Your task to perform on an android device: What's the weather? Image 0: 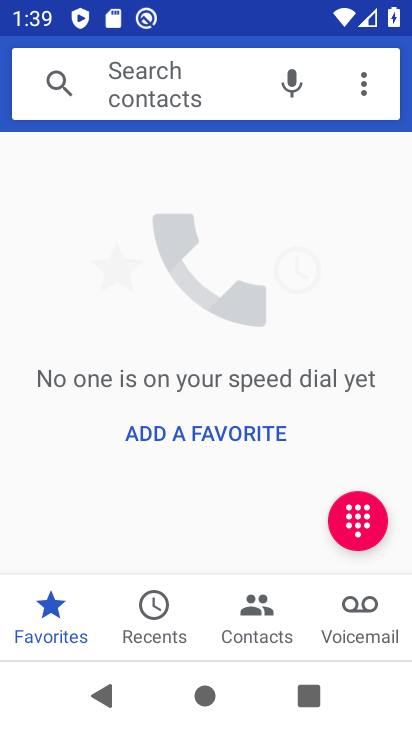
Step 0: press home button
Your task to perform on an android device: What's the weather? Image 1: 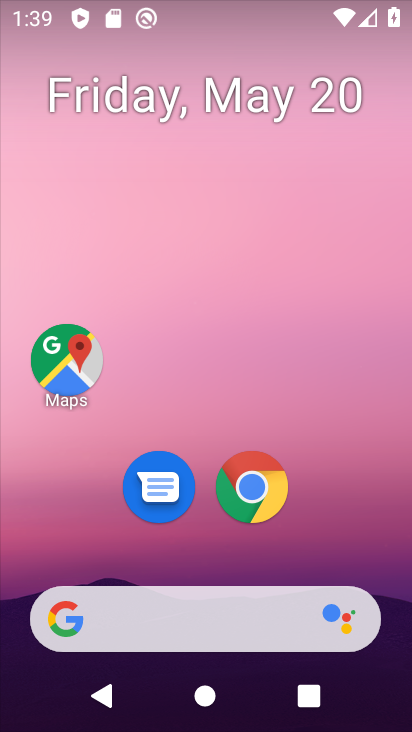
Step 1: drag from (337, 524) to (332, 25)
Your task to perform on an android device: What's the weather? Image 2: 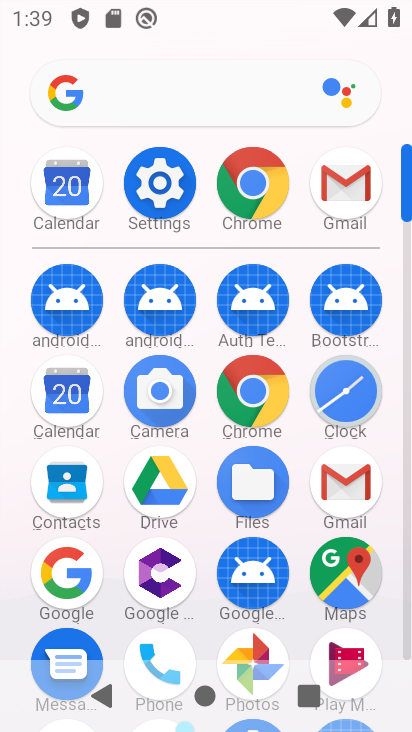
Step 2: click (58, 104)
Your task to perform on an android device: What's the weather? Image 3: 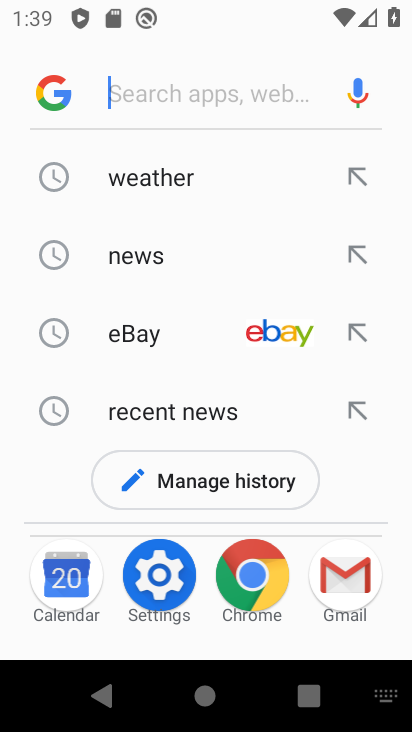
Step 3: click (57, 105)
Your task to perform on an android device: What's the weather? Image 4: 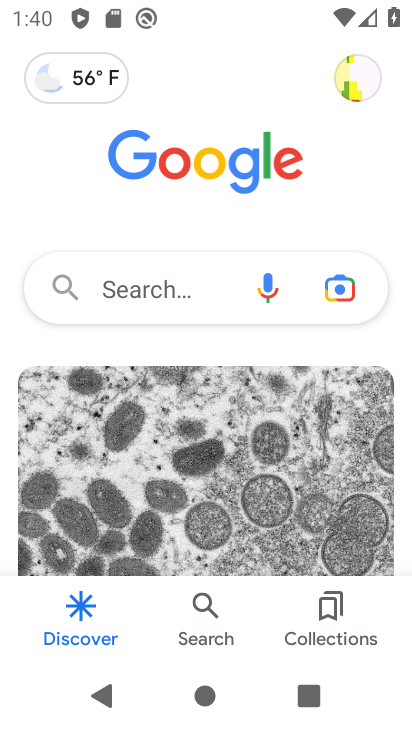
Step 4: click (84, 85)
Your task to perform on an android device: What's the weather? Image 5: 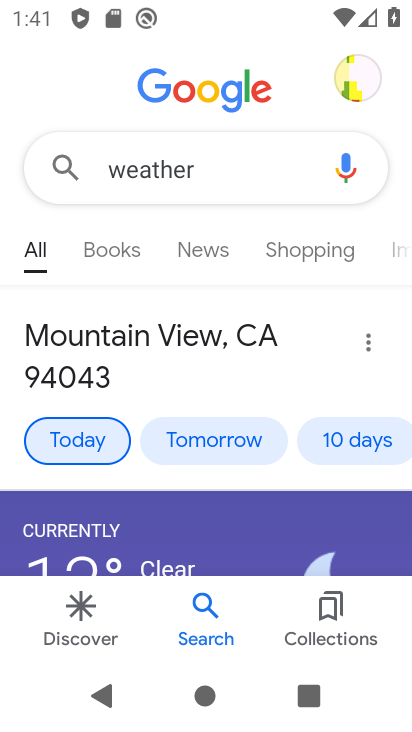
Step 5: task complete